Your task to perform on an android device: add a label to a message in the gmail app Image 0: 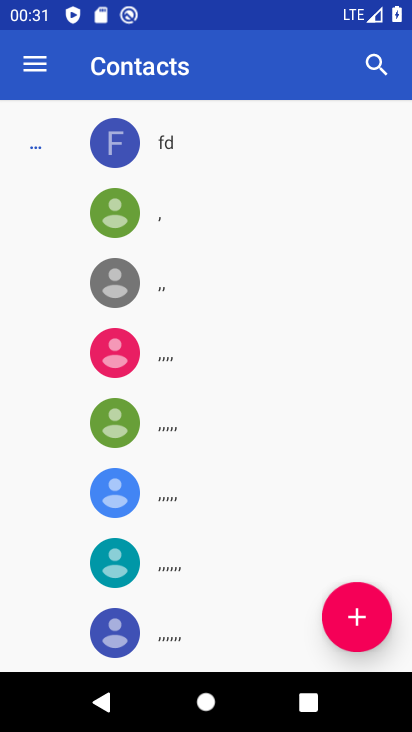
Step 0: press home button
Your task to perform on an android device: add a label to a message in the gmail app Image 1: 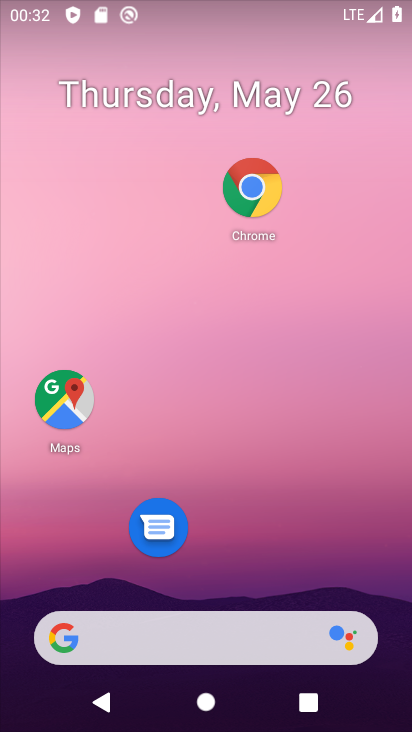
Step 1: drag from (229, 582) to (229, 3)
Your task to perform on an android device: add a label to a message in the gmail app Image 2: 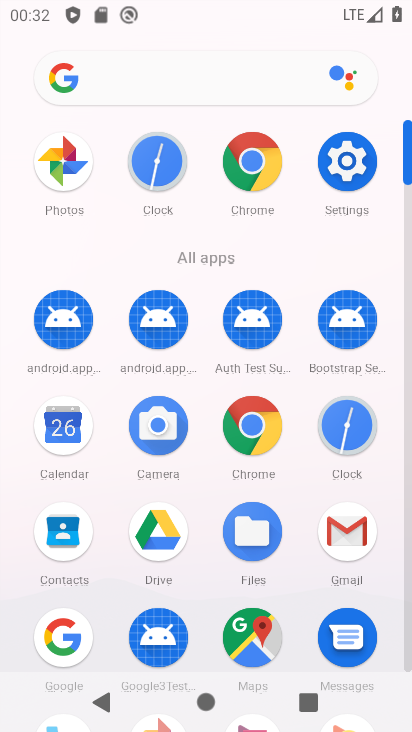
Step 2: click (344, 159)
Your task to perform on an android device: add a label to a message in the gmail app Image 3: 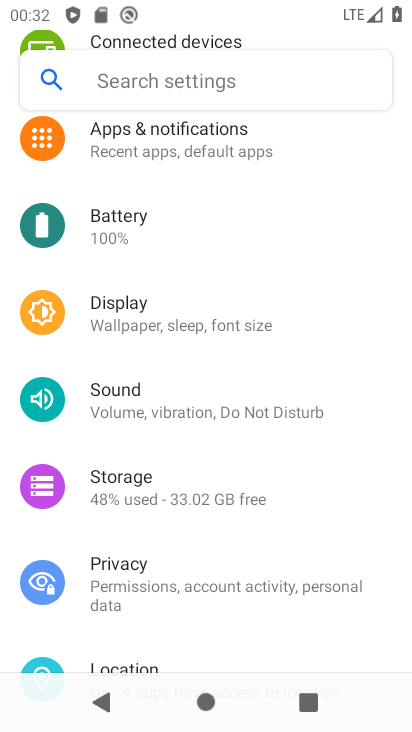
Step 3: press home button
Your task to perform on an android device: add a label to a message in the gmail app Image 4: 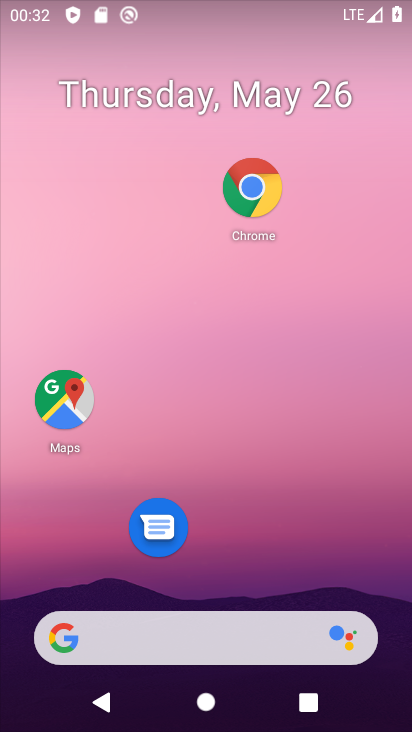
Step 4: drag from (165, 599) to (209, 66)
Your task to perform on an android device: add a label to a message in the gmail app Image 5: 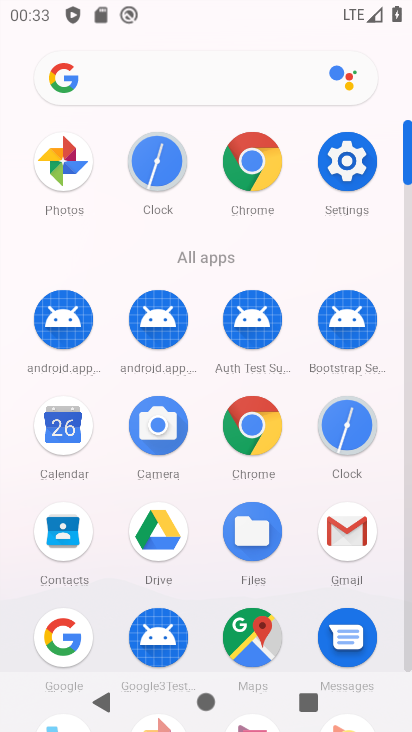
Step 5: click (328, 512)
Your task to perform on an android device: add a label to a message in the gmail app Image 6: 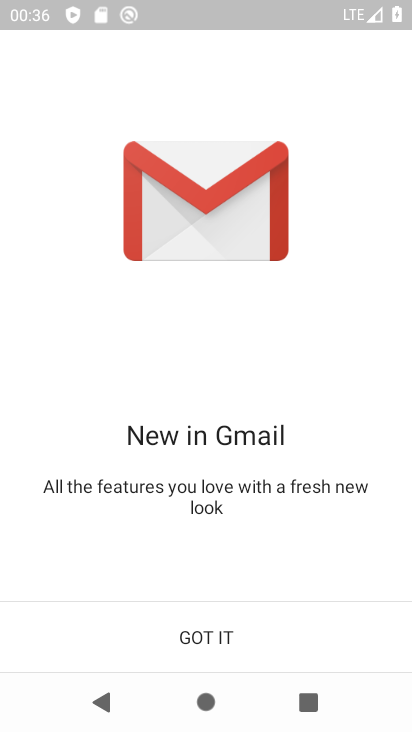
Step 6: click (234, 633)
Your task to perform on an android device: add a label to a message in the gmail app Image 7: 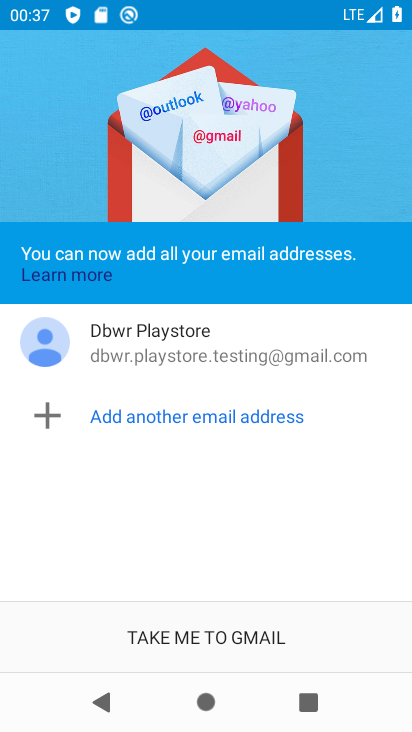
Step 7: click (182, 656)
Your task to perform on an android device: add a label to a message in the gmail app Image 8: 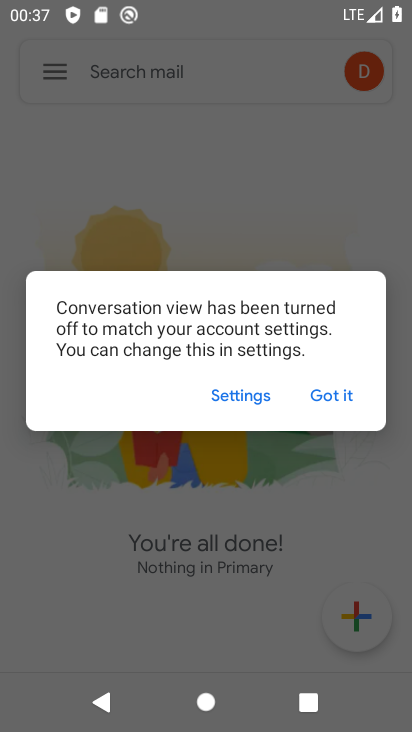
Step 8: task complete